Your task to perform on an android device: Open eBay Image 0: 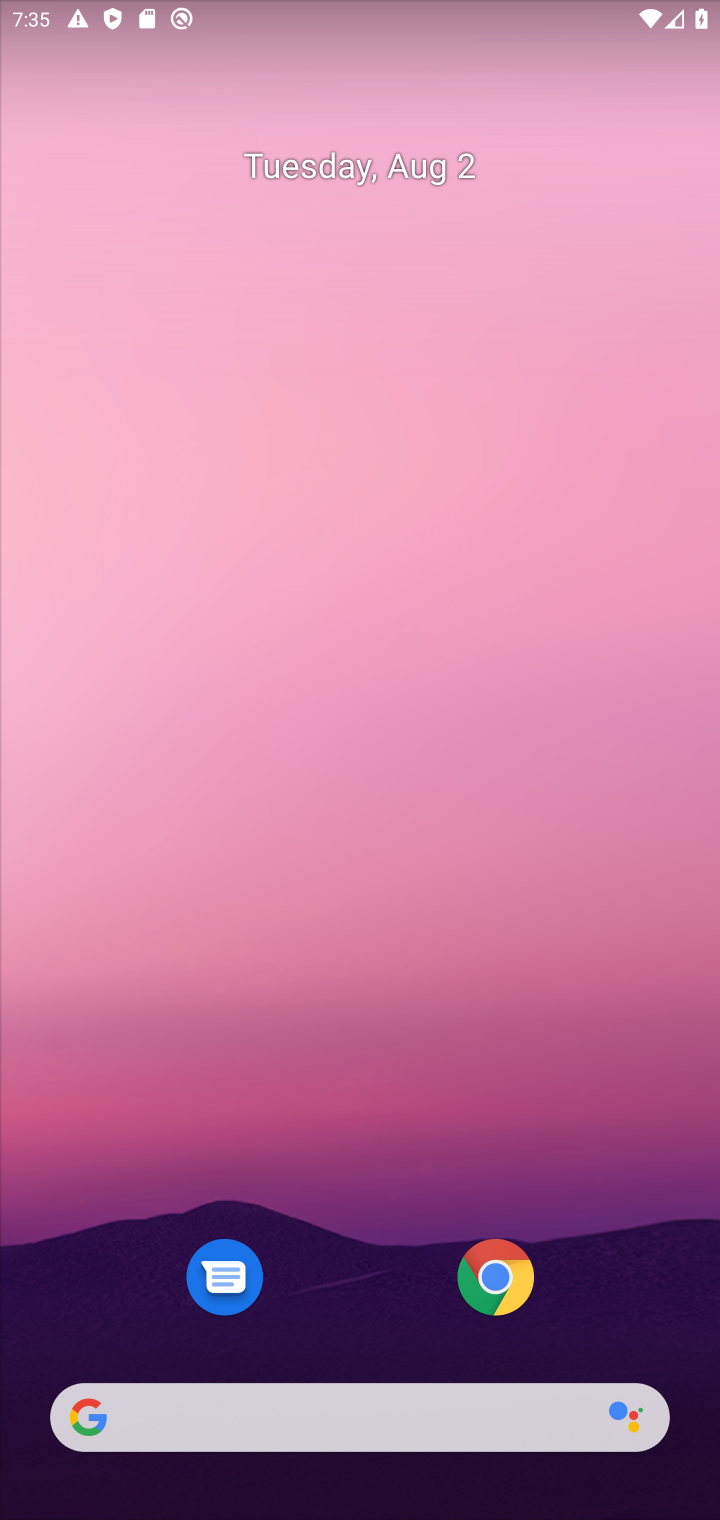
Step 0: drag from (427, 1255) to (370, 364)
Your task to perform on an android device: Open eBay Image 1: 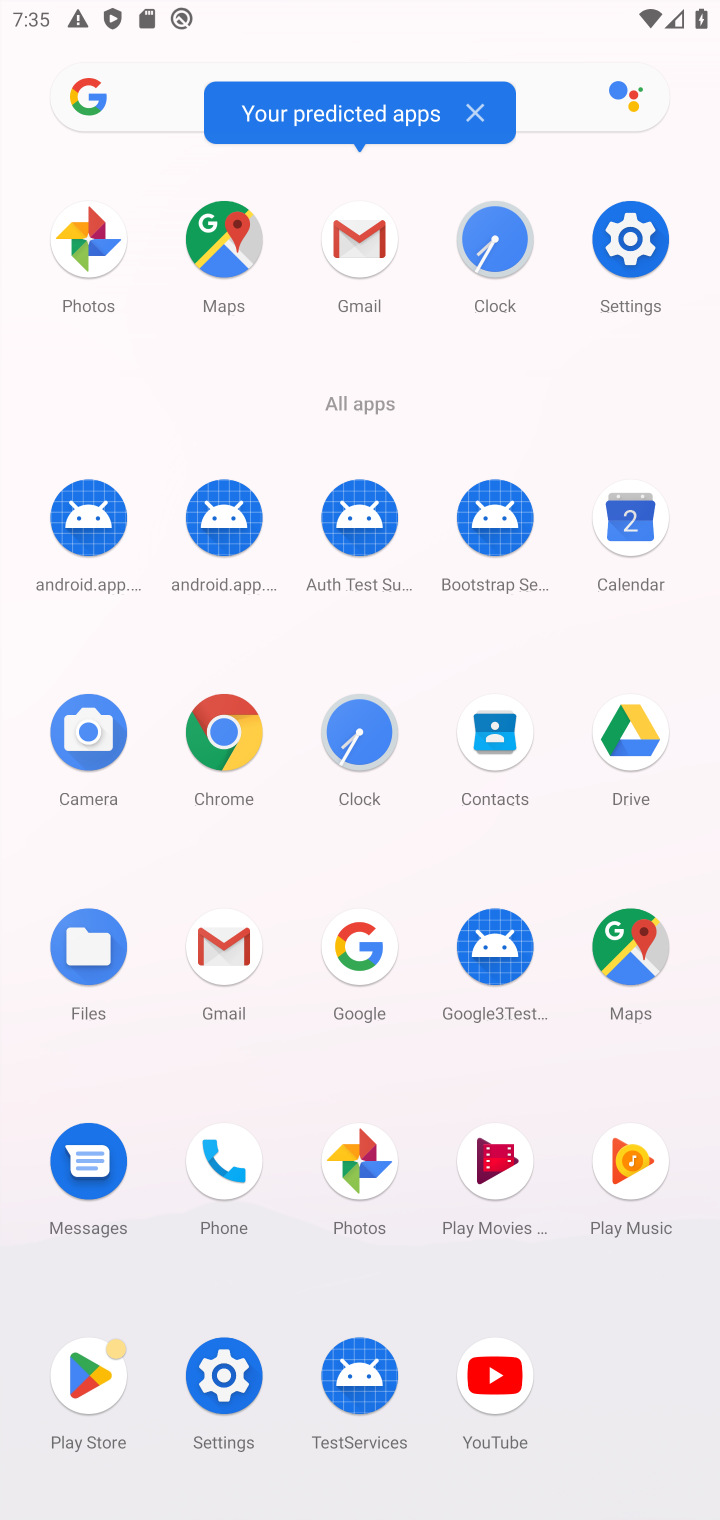
Step 1: click (228, 712)
Your task to perform on an android device: Open eBay Image 2: 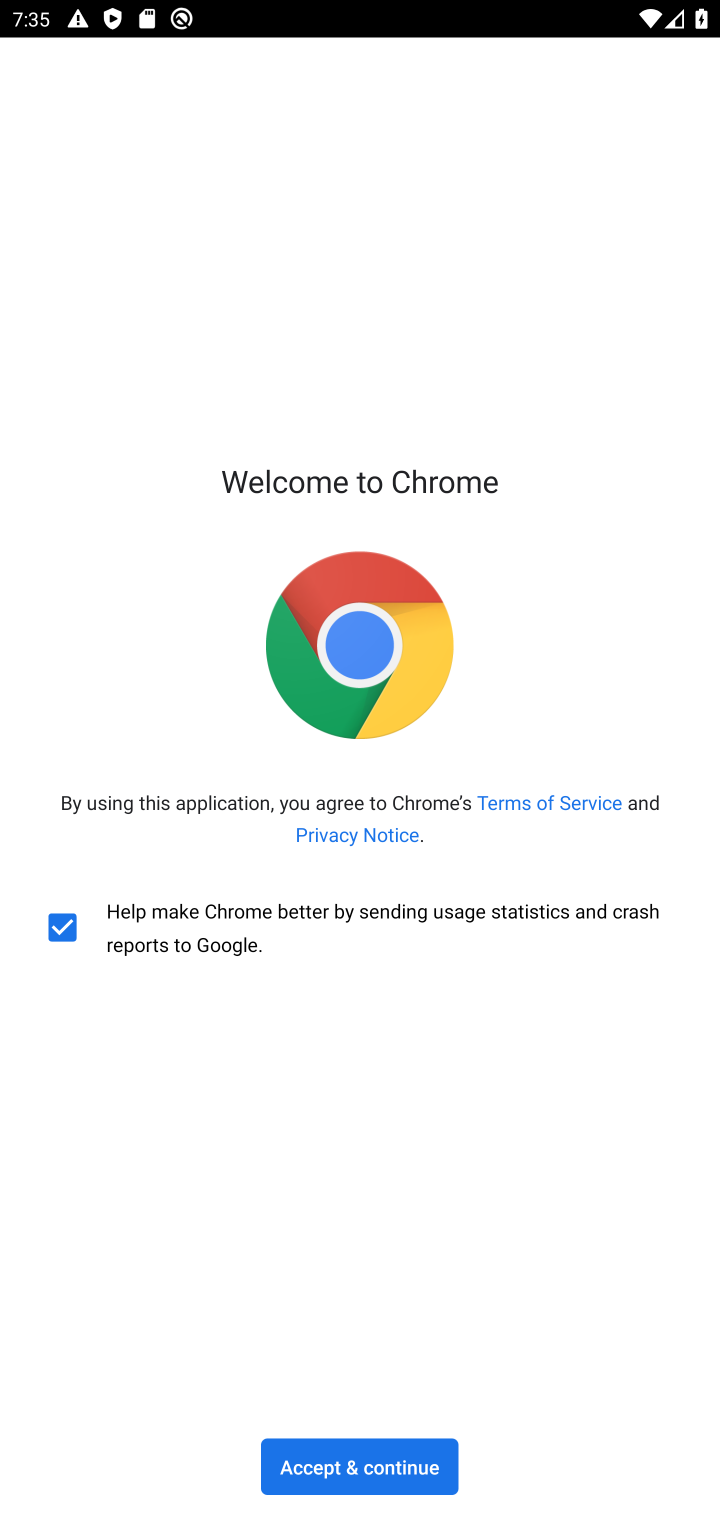
Step 2: click (293, 1488)
Your task to perform on an android device: Open eBay Image 3: 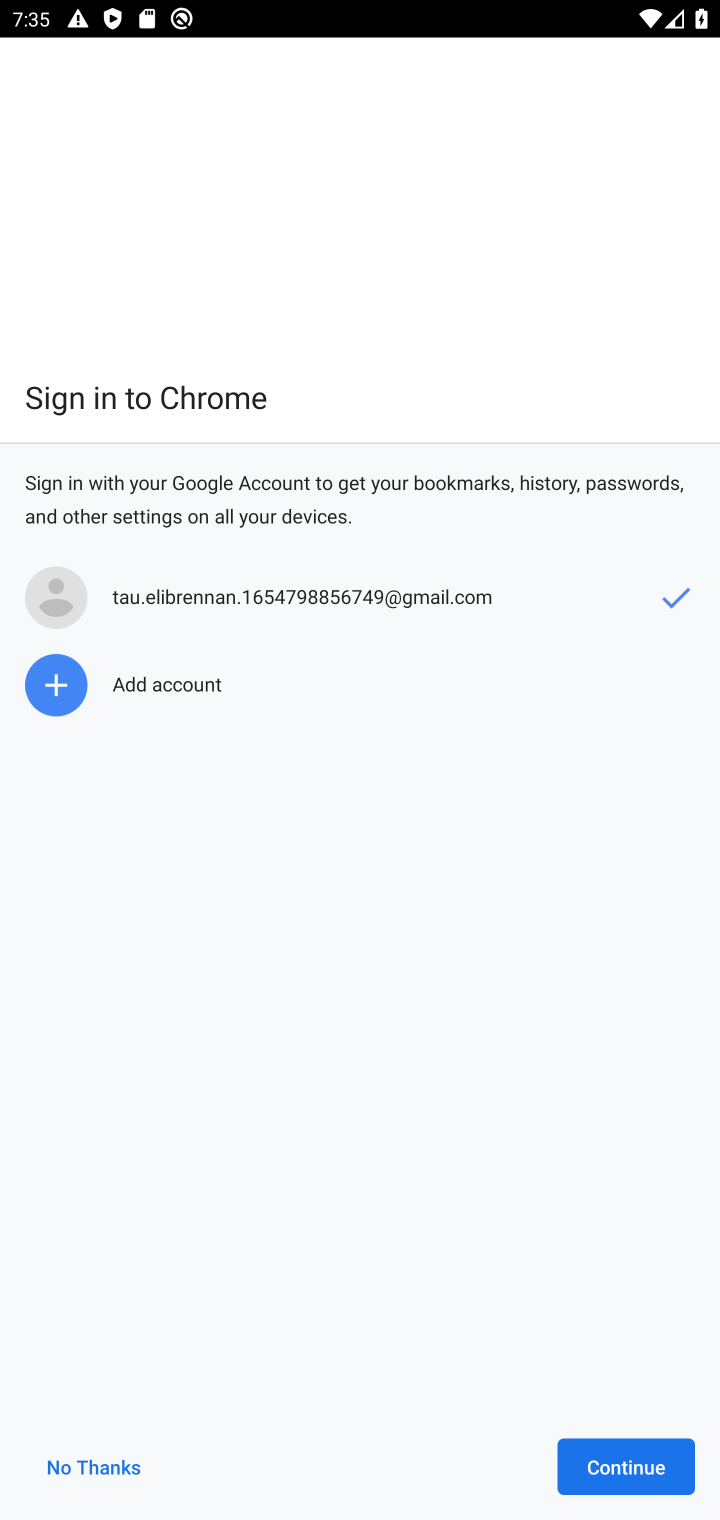
Step 3: click (76, 1463)
Your task to perform on an android device: Open eBay Image 4: 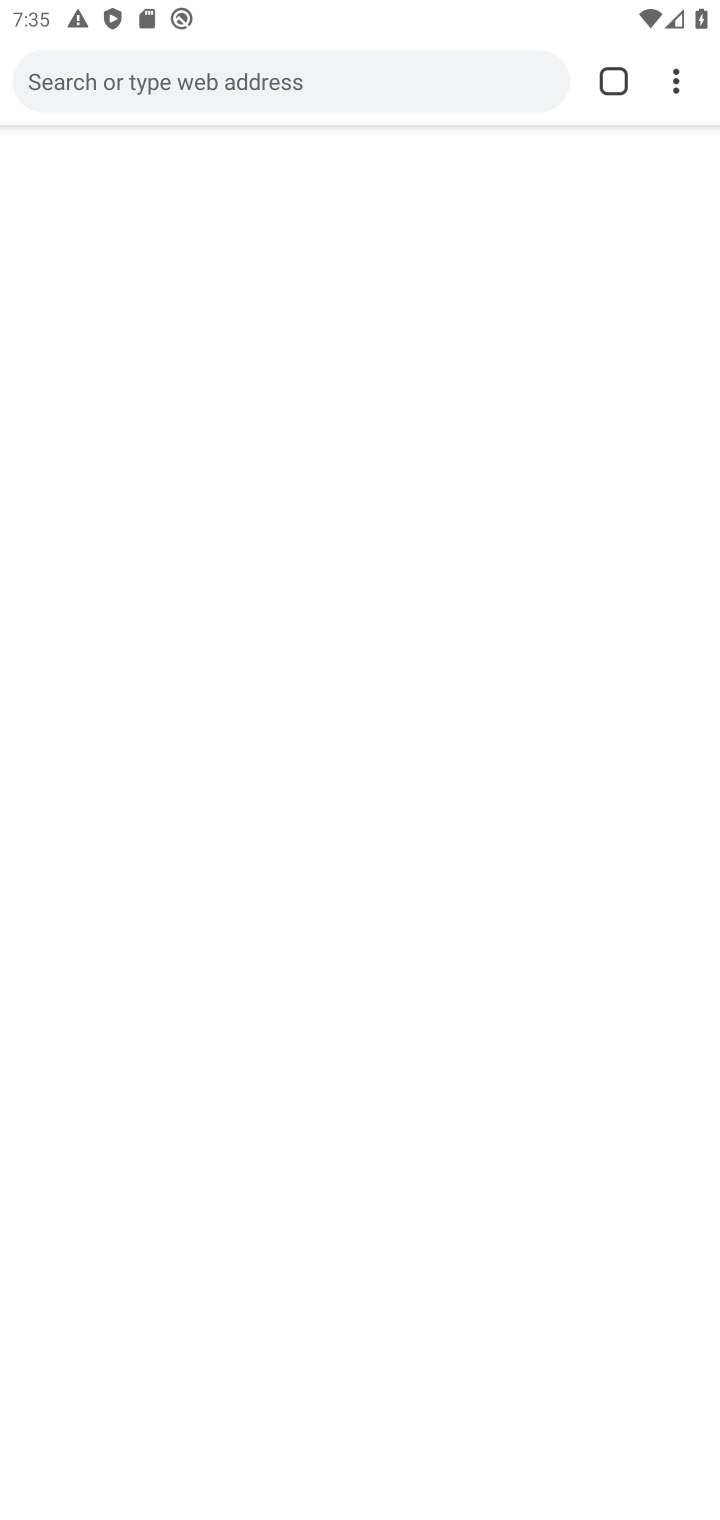
Step 4: click (376, 96)
Your task to perform on an android device: Open eBay Image 5: 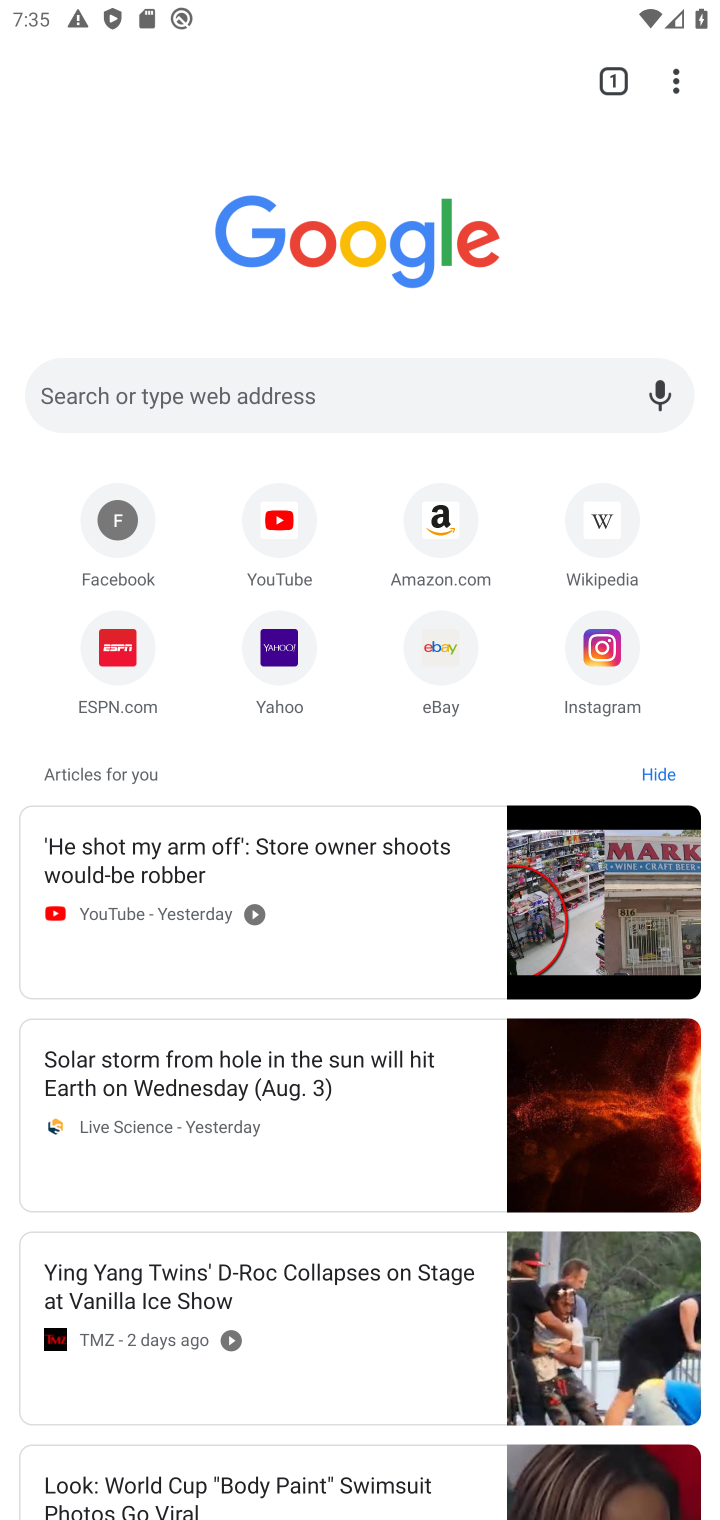
Step 5: click (433, 666)
Your task to perform on an android device: Open eBay Image 6: 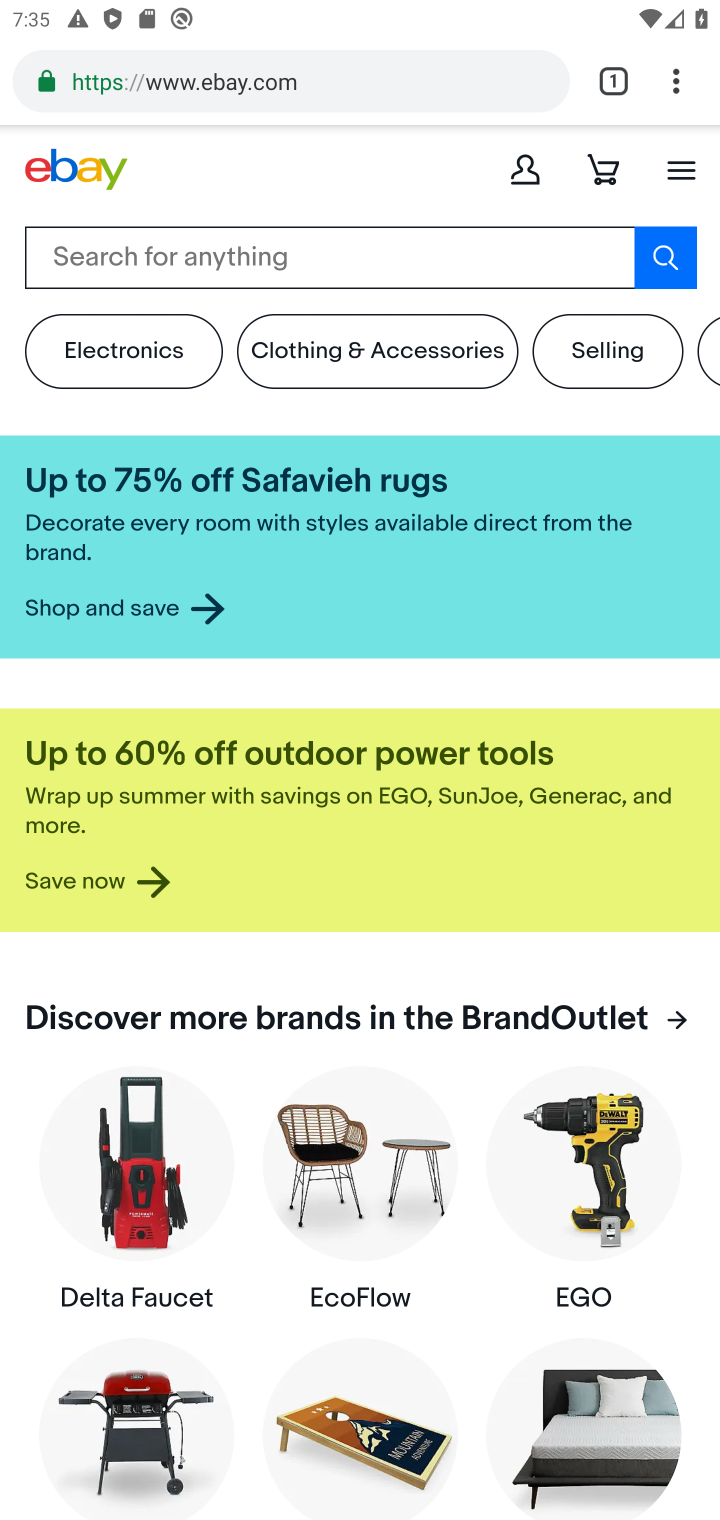
Step 6: task complete